Your task to perform on an android device: Go to network settings Image 0: 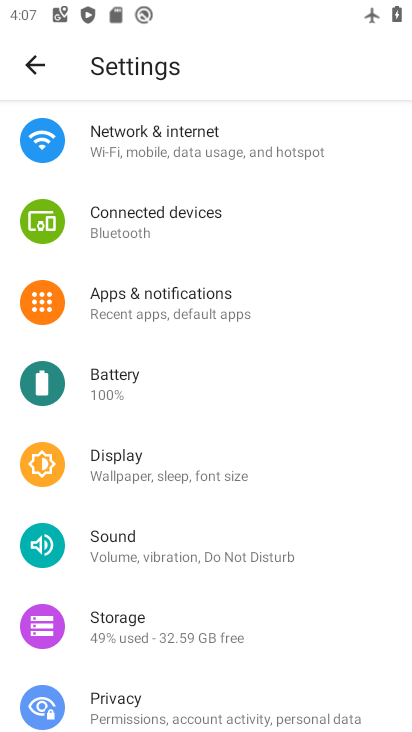
Step 0: press home button
Your task to perform on an android device: Go to network settings Image 1: 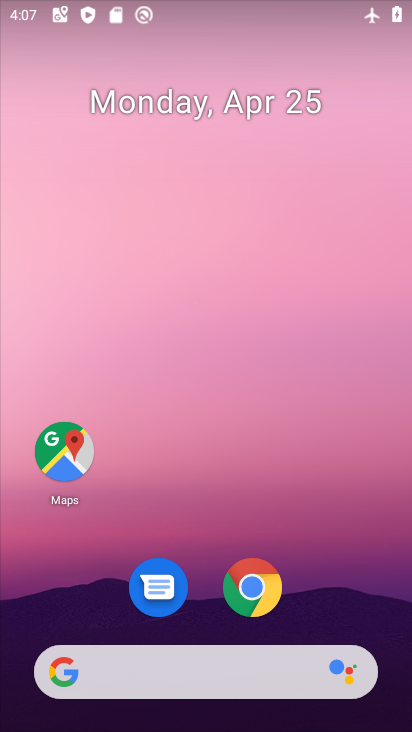
Step 1: drag from (318, 624) to (311, 9)
Your task to perform on an android device: Go to network settings Image 2: 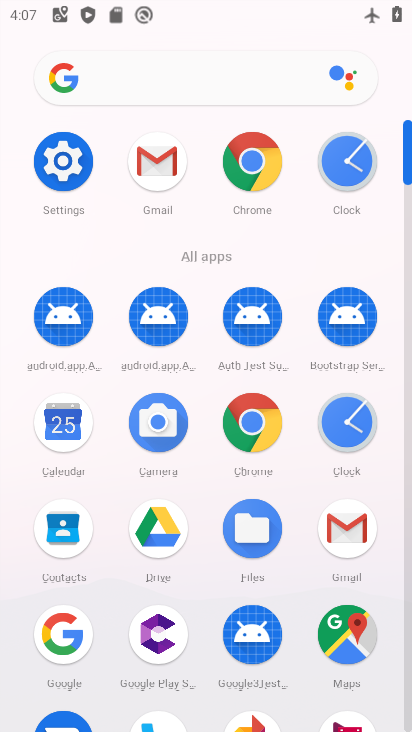
Step 2: click (53, 155)
Your task to perform on an android device: Go to network settings Image 3: 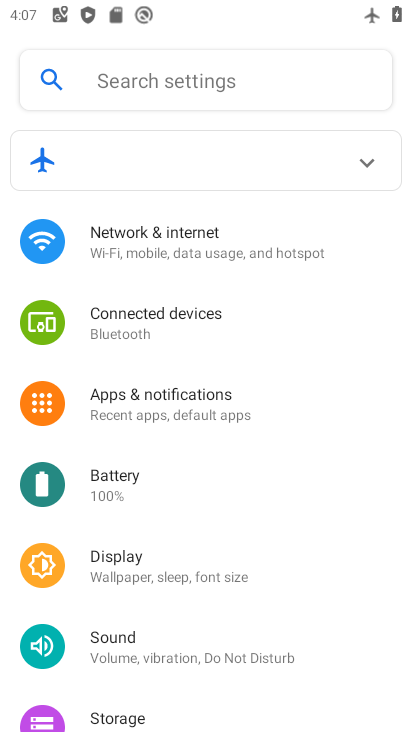
Step 3: click (175, 239)
Your task to perform on an android device: Go to network settings Image 4: 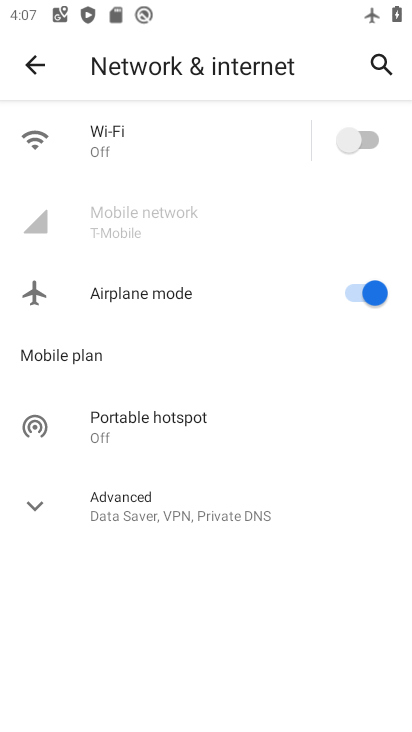
Step 4: click (33, 513)
Your task to perform on an android device: Go to network settings Image 5: 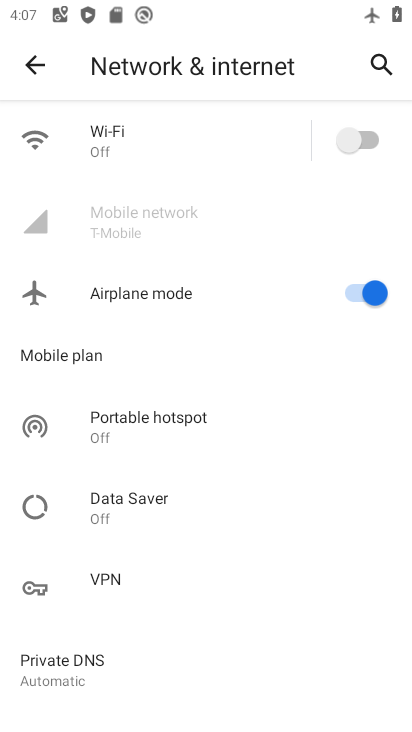
Step 5: task complete